Your task to perform on an android device: create a new album in the google photos Image 0: 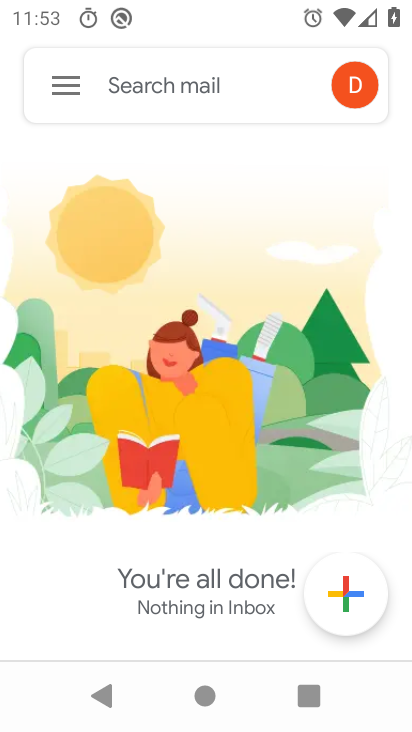
Step 0: press home button
Your task to perform on an android device: create a new album in the google photos Image 1: 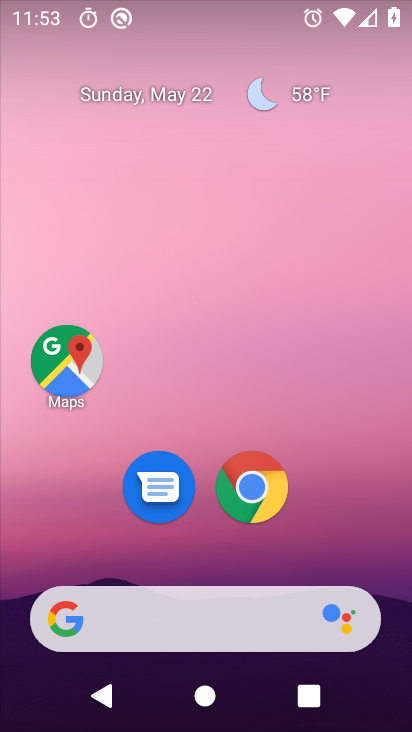
Step 1: drag from (370, 507) to (355, 134)
Your task to perform on an android device: create a new album in the google photos Image 2: 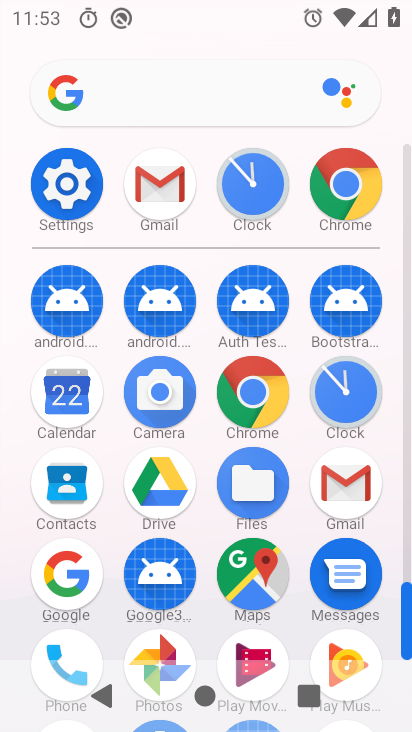
Step 2: click (166, 653)
Your task to perform on an android device: create a new album in the google photos Image 3: 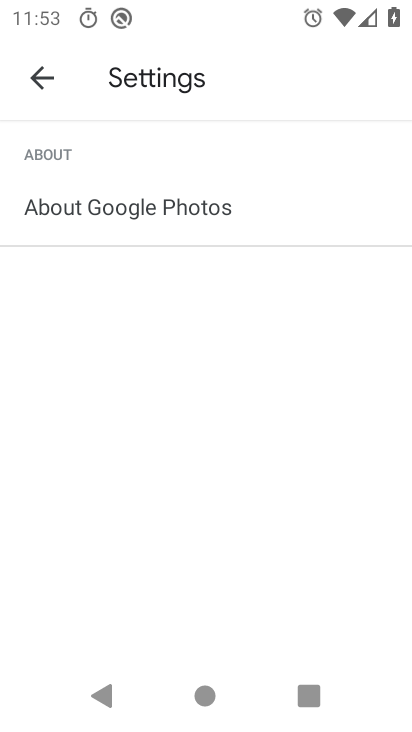
Step 3: click (40, 90)
Your task to perform on an android device: create a new album in the google photos Image 4: 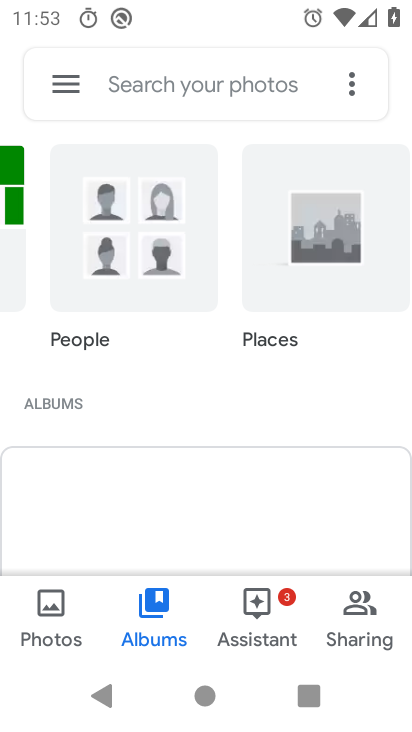
Step 4: drag from (146, 559) to (191, 326)
Your task to perform on an android device: create a new album in the google photos Image 5: 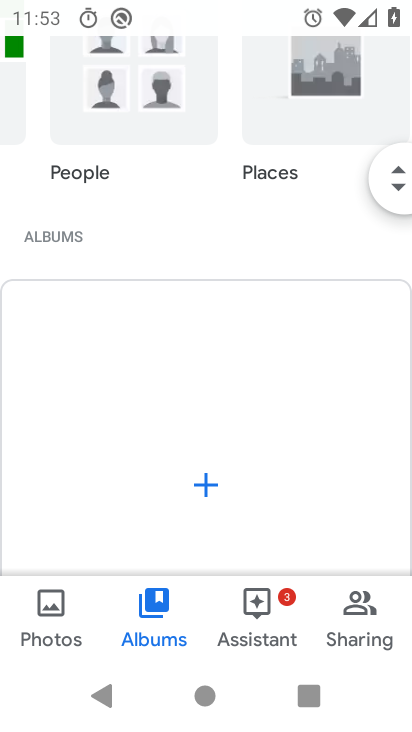
Step 5: click (210, 478)
Your task to perform on an android device: create a new album in the google photos Image 6: 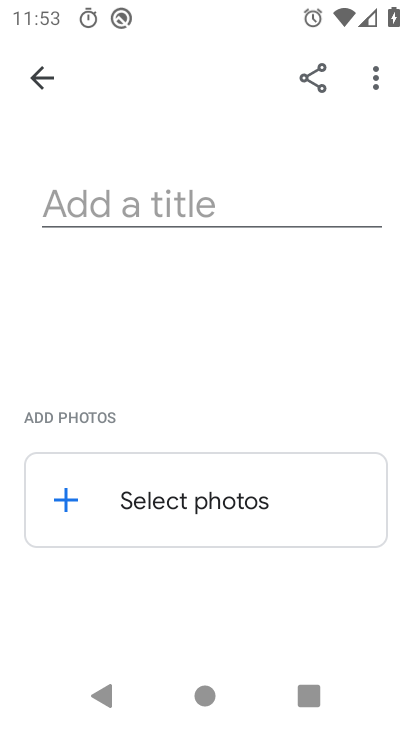
Step 6: click (92, 208)
Your task to perform on an android device: create a new album in the google photos Image 7: 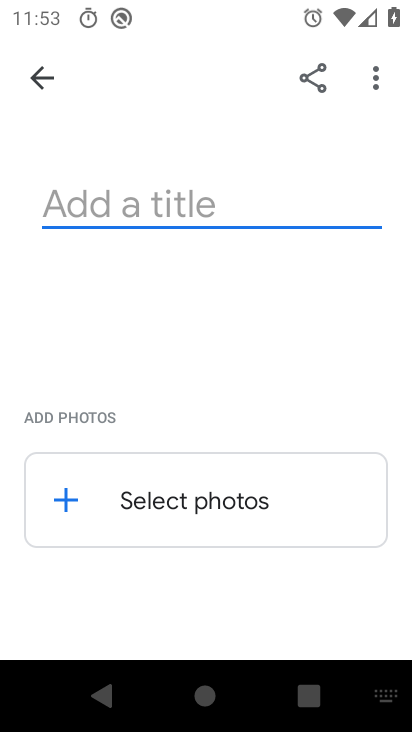
Step 7: type "difk"
Your task to perform on an android device: create a new album in the google photos Image 8: 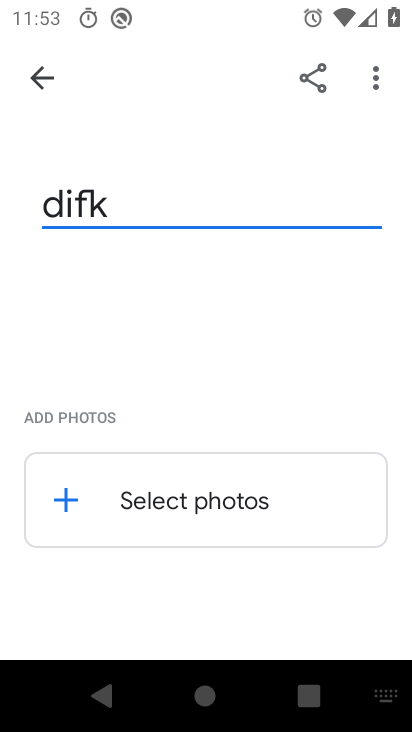
Step 8: click (67, 507)
Your task to perform on an android device: create a new album in the google photos Image 9: 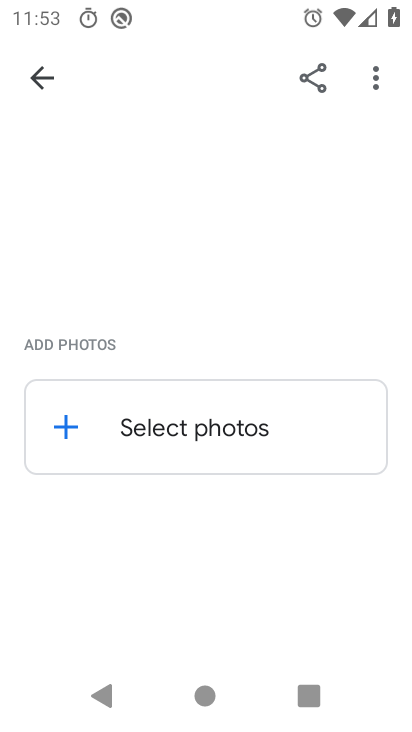
Step 9: click (60, 422)
Your task to perform on an android device: create a new album in the google photos Image 10: 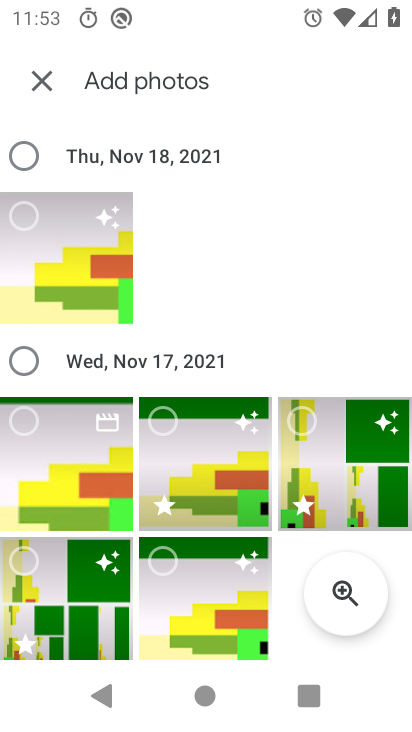
Step 10: click (33, 421)
Your task to perform on an android device: create a new album in the google photos Image 11: 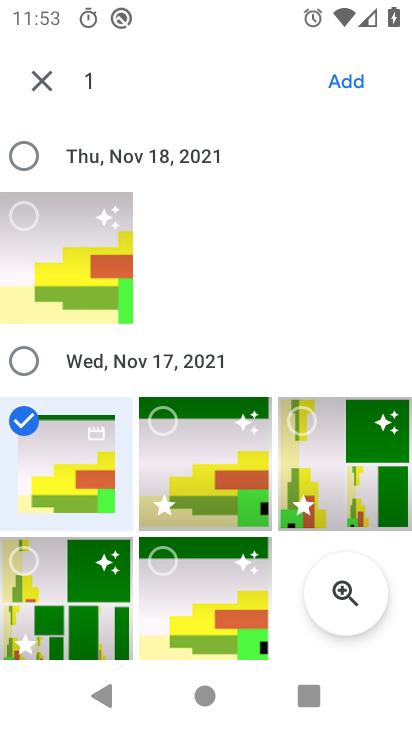
Step 11: click (362, 72)
Your task to perform on an android device: create a new album in the google photos Image 12: 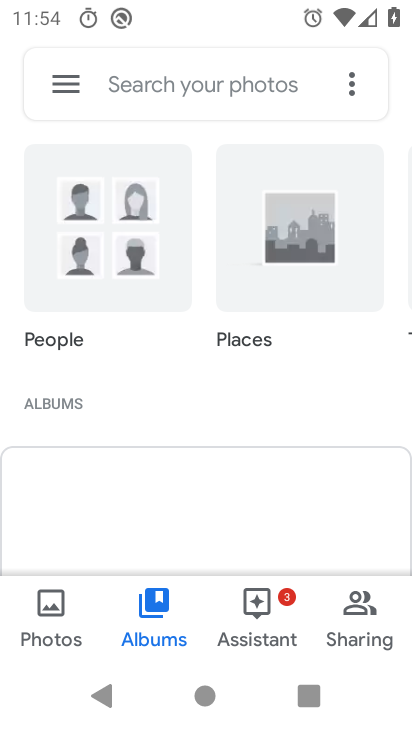
Step 12: task complete